Your task to perform on an android device: When is my next meeting? Image 0: 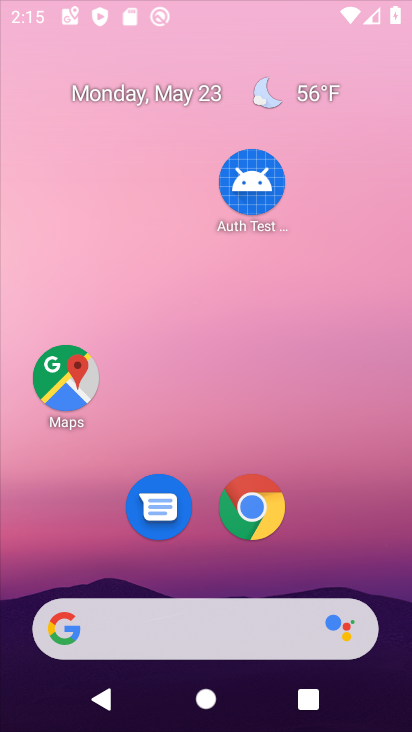
Step 0: click (230, 266)
Your task to perform on an android device: When is my next meeting? Image 1: 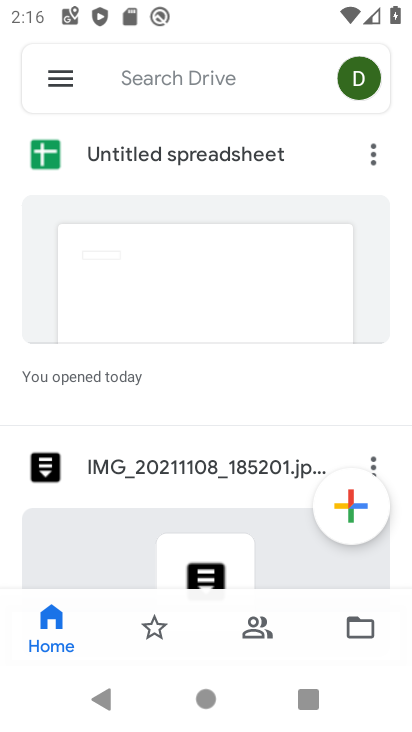
Step 1: press back button
Your task to perform on an android device: When is my next meeting? Image 2: 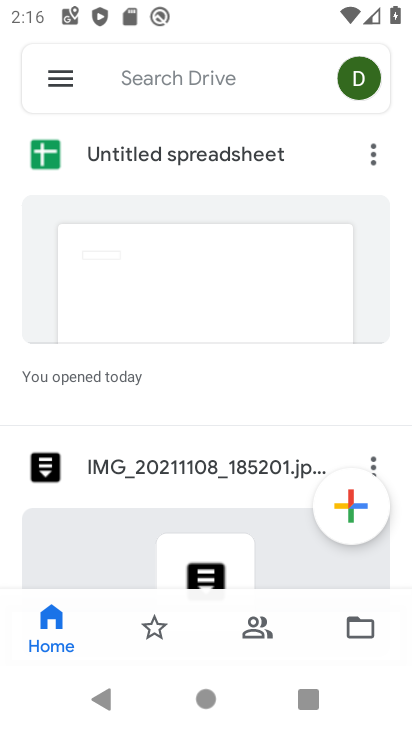
Step 2: press back button
Your task to perform on an android device: When is my next meeting? Image 3: 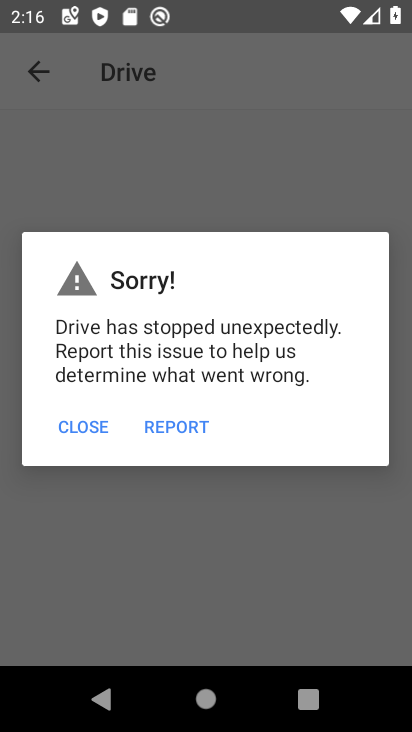
Step 3: press back button
Your task to perform on an android device: When is my next meeting? Image 4: 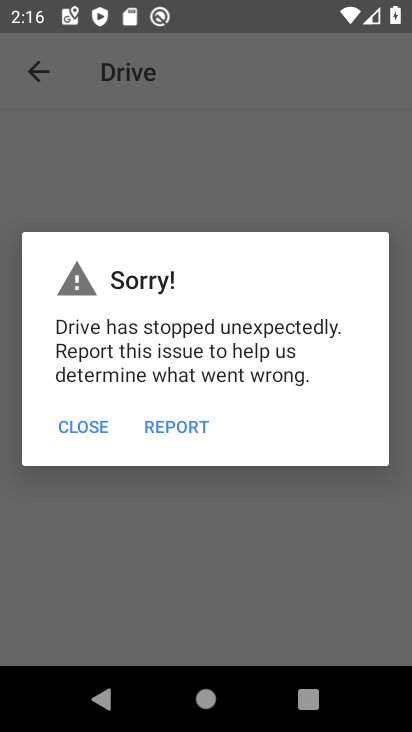
Step 4: press back button
Your task to perform on an android device: When is my next meeting? Image 5: 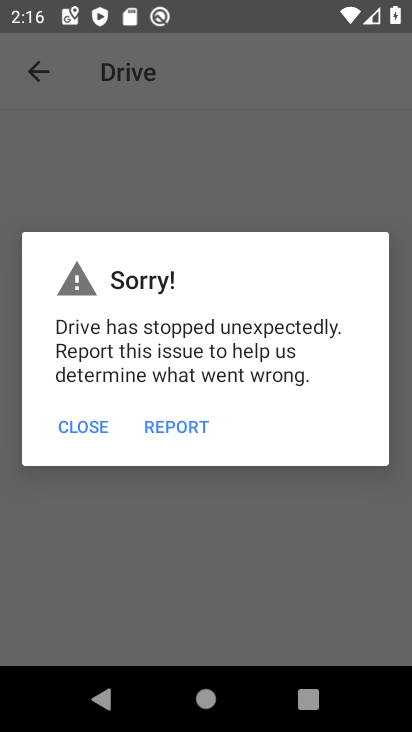
Step 5: press back button
Your task to perform on an android device: When is my next meeting? Image 6: 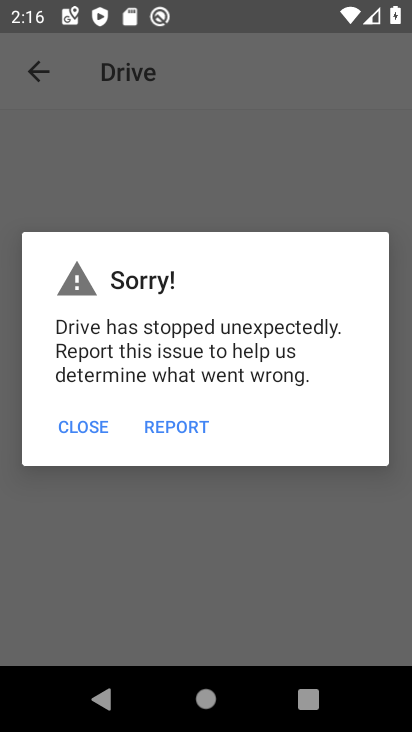
Step 6: press back button
Your task to perform on an android device: When is my next meeting? Image 7: 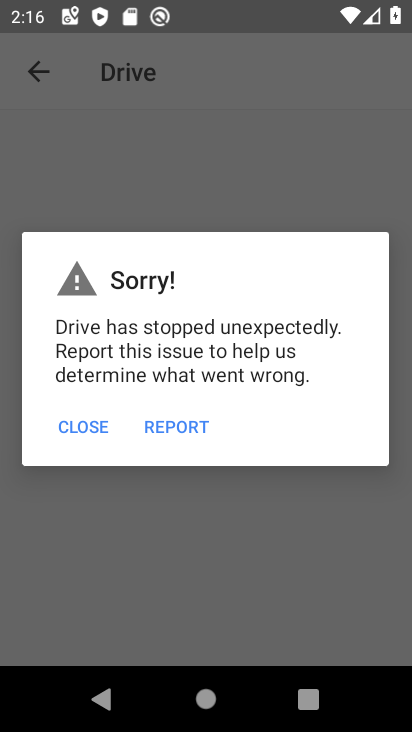
Step 7: click (95, 422)
Your task to perform on an android device: When is my next meeting? Image 8: 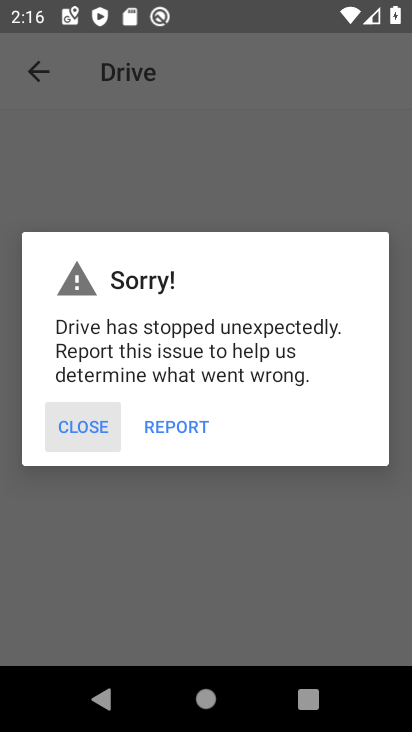
Step 8: click (83, 422)
Your task to perform on an android device: When is my next meeting? Image 9: 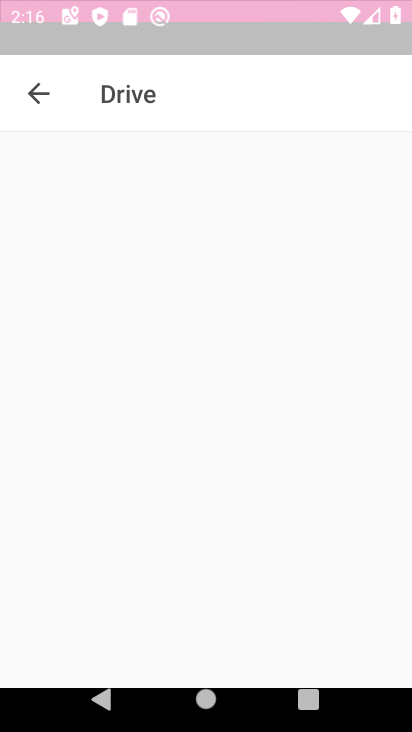
Step 9: click (83, 422)
Your task to perform on an android device: When is my next meeting? Image 10: 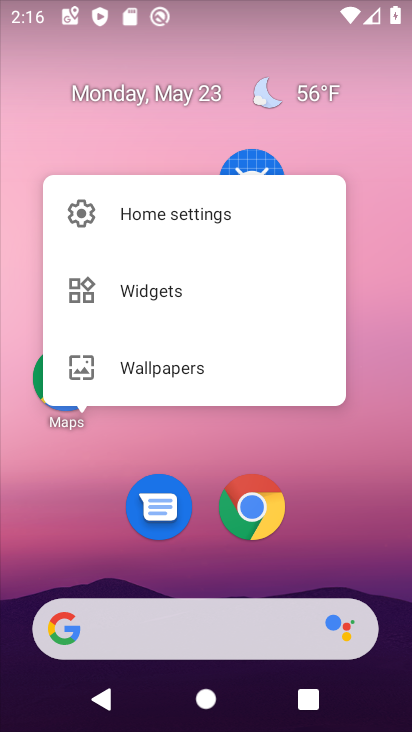
Step 10: drag from (361, 603) to (271, 5)
Your task to perform on an android device: When is my next meeting? Image 11: 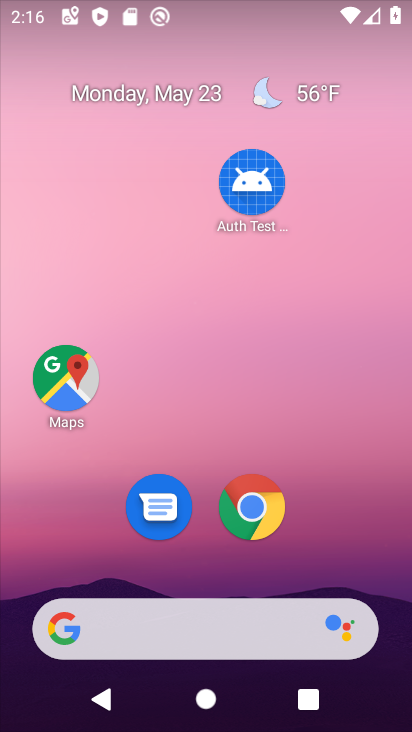
Step 11: drag from (323, 472) to (276, 6)
Your task to perform on an android device: When is my next meeting? Image 12: 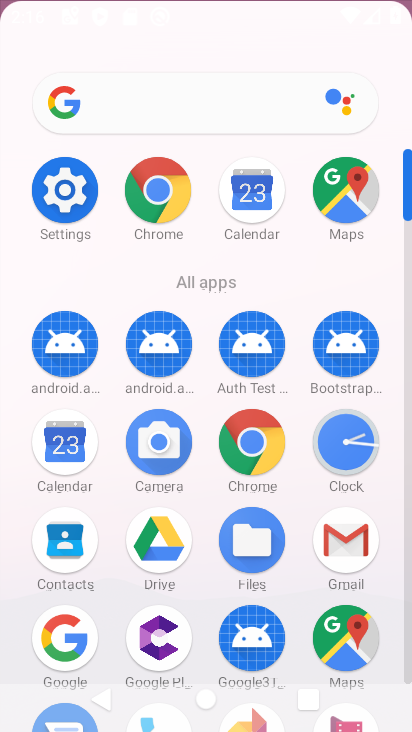
Step 12: click (257, 433)
Your task to perform on an android device: When is my next meeting? Image 13: 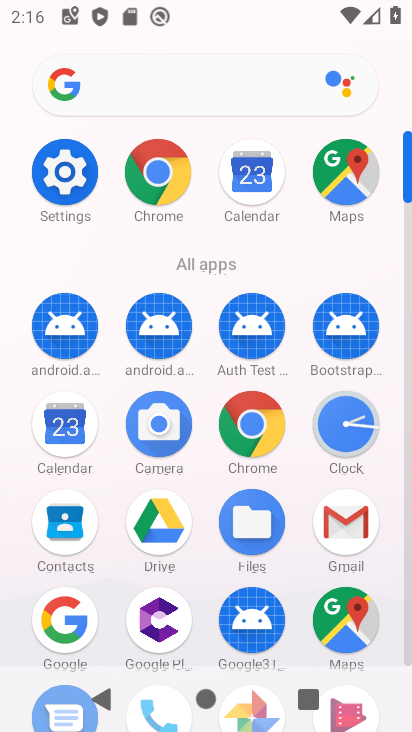
Step 13: drag from (236, 426) to (204, 5)
Your task to perform on an android device: When is my next meeting? Image 14: 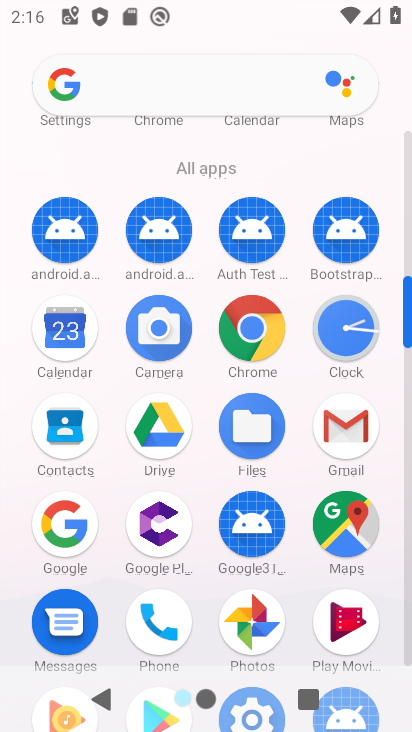
Step 14: drag from (212, 411) to (206, 27)
Your task to perform on an android device: When is my next meeting? Image 15: 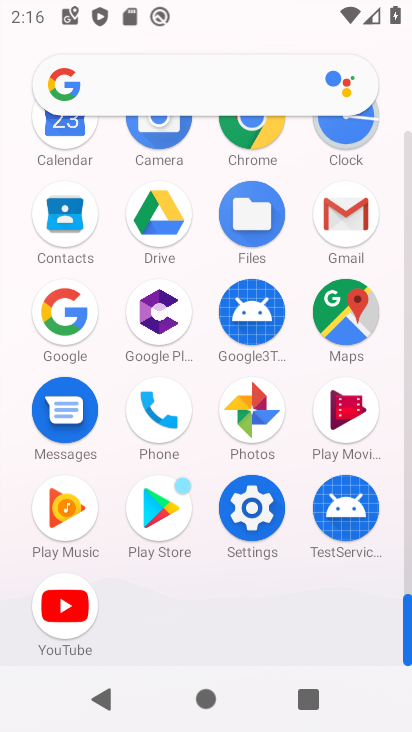
Step 15: drag from (199, 390) to (215, 106)
Your task to perform on an android device: When is my next meeting? Image 16: 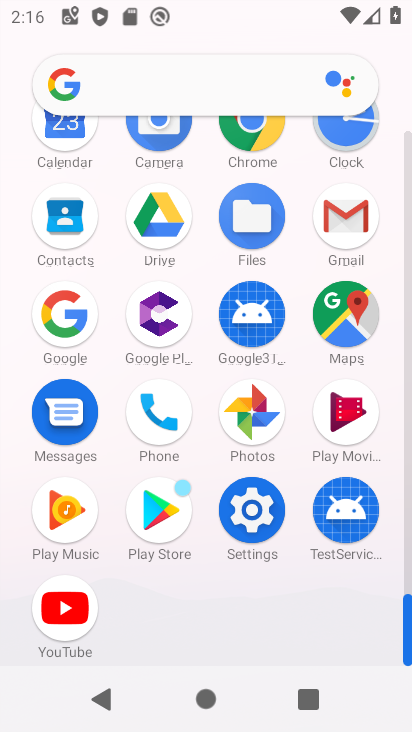
Step 16: drag from (234, 448) to (268, 5)
Your task to perform on an android device: When is my next meeting? Image 17: 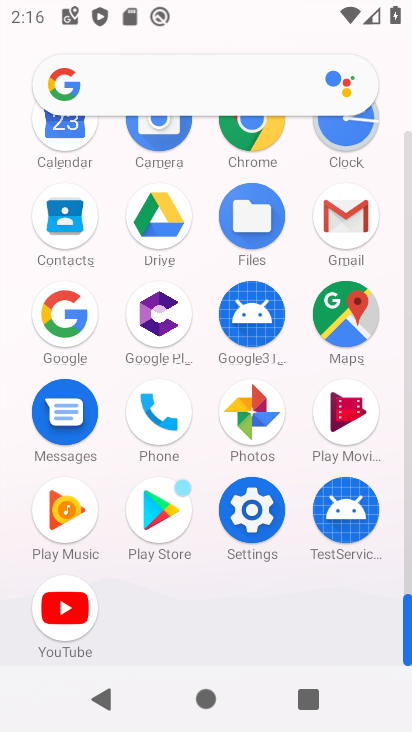
Step 17: drag from (202, 458) to (213, 543)
Your task to perform on an android device: When is my next meeting? Image 18: 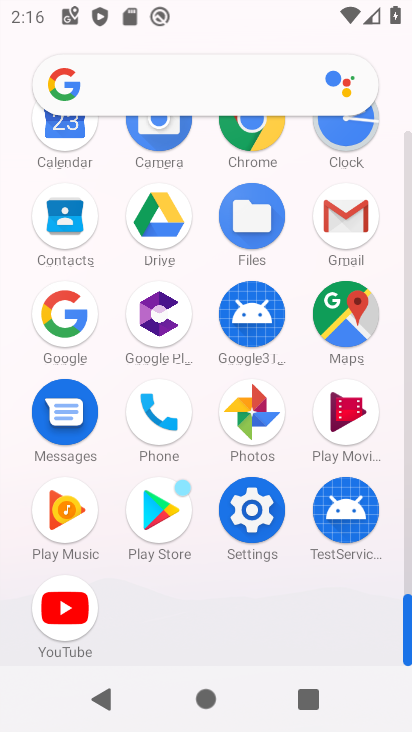
Step 18: drag from (194, 240) to (194, 479)
Your task to perform on an android device: When is my next meeting? Image 19: 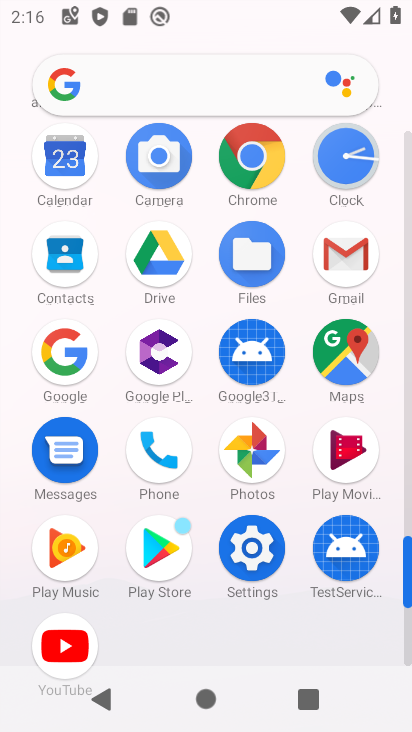
Step 19: drag from (166, 246) to (207, 528)
Your task to perform on an android device: When is my next meeting? Image 20: 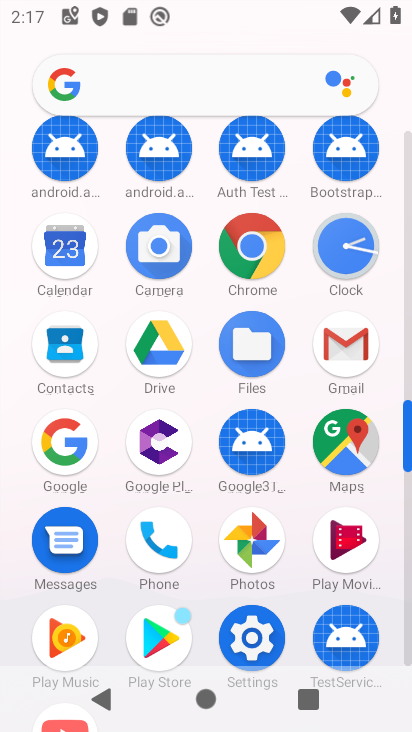
Step 20: click (254, 638)
Your task to perform on an android device: When is my next meeting? Image 21: 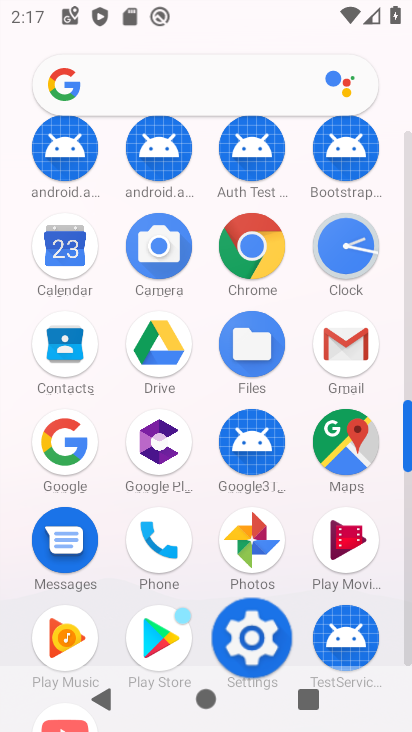
Step 21: click (254, 638)
Your task to perform on an android device: When is my next meeting? Image 22: 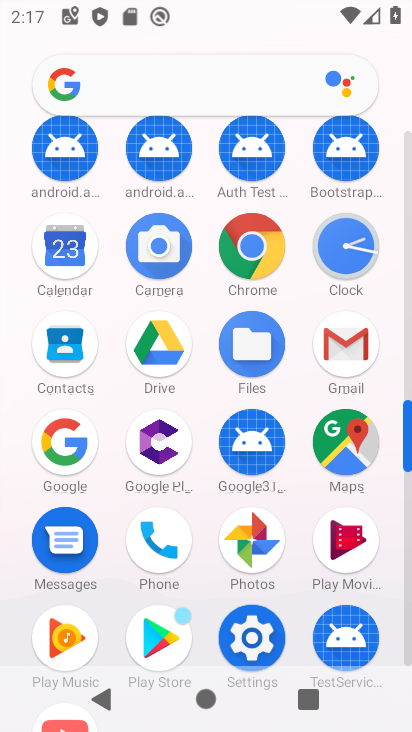
Step 22: click (254, 638)
Your task to perform on an android device: When is my next meeting? Image 23: 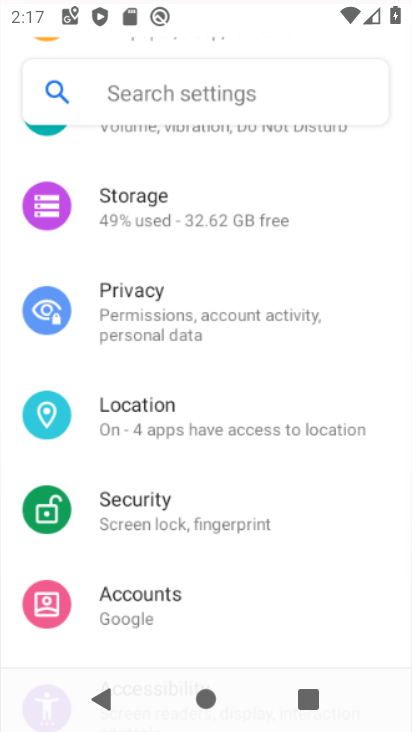
Step 23: click (255, 639)
Your task to perform on an android device: When is my next meeting? Image 24: 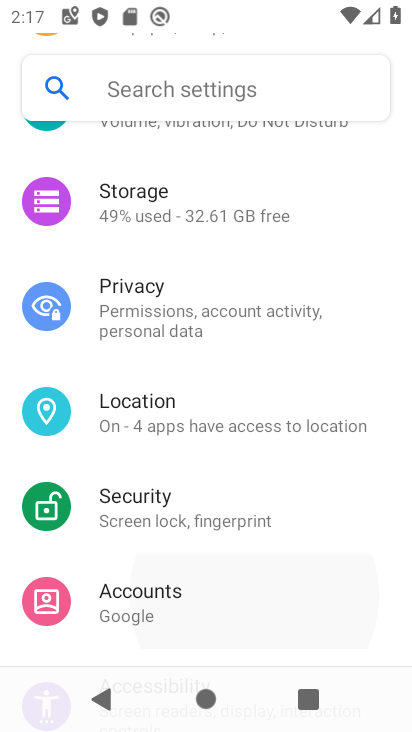
Step 24: click (255, 639)
Your task to perform on an android device: When is my next meeting? Image 25: 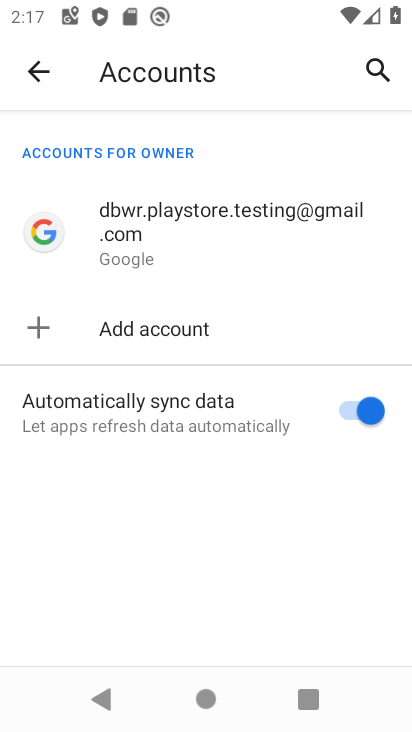
Step 25: click (32, 71)
Your task to perform on an android device: When is my next meeting? Image 26: 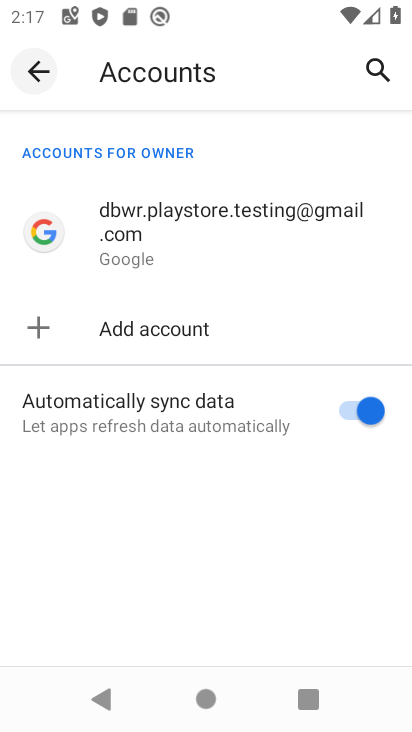
Step 26: click (32, 71)
Your task to perform on an android device: When is my next meeting? Image 27: 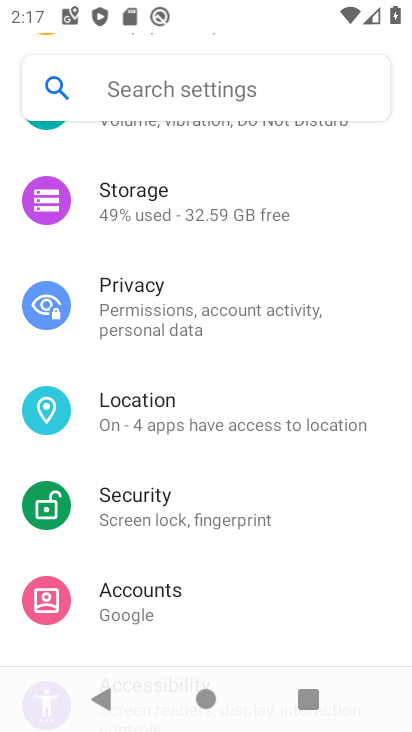
Step 27: click (32, 71)
Your task to perform on an android device: When is my next meeting? Image 28: 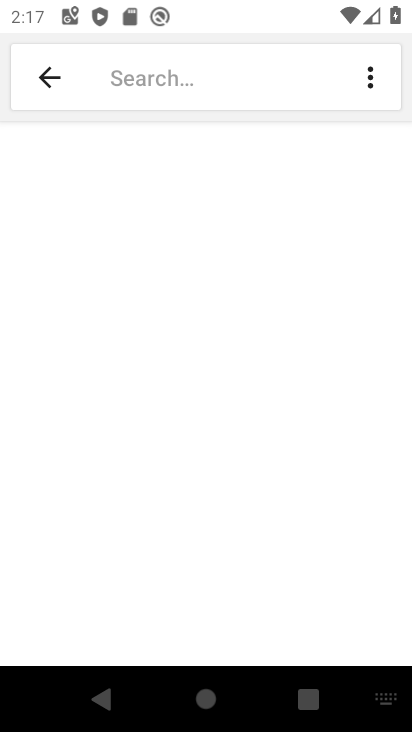
Step 28: click (44, 71)
Your task to perform on an android device: When is my next meeting? Image 29: 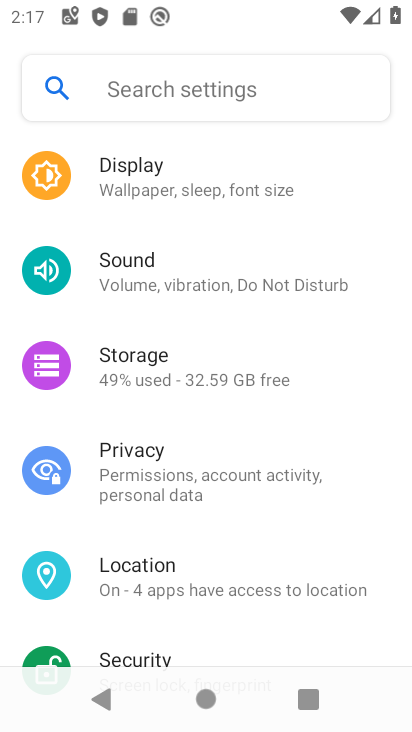
Step 29: drag from (158, 303) to (195, 464)
Your task to perform on an android device: When is my next meeting? Image 30: 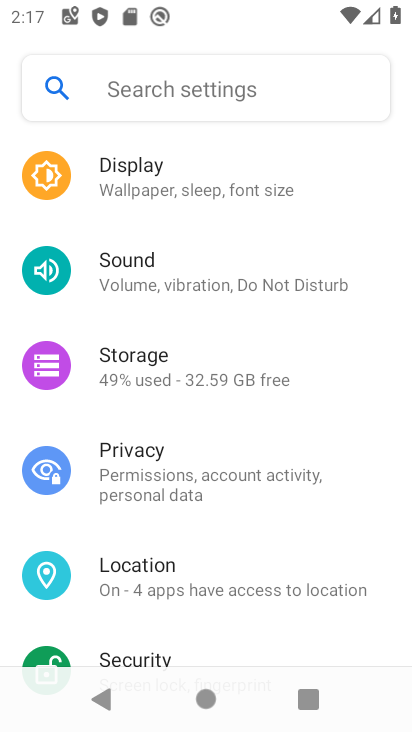
Step 30: drag from (210, 247) to (218, 539)
Your task to perform on an android device: When is my next meeting? Image 31: 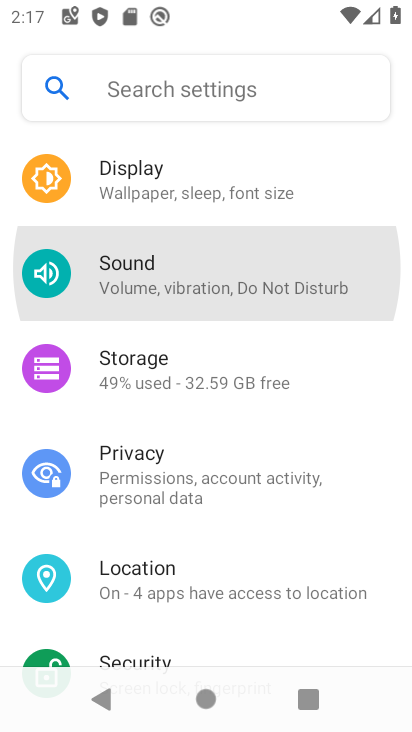
Step 31: drag from (153, 207) to (218, 530)
Your task to perform on an android device: When is my next meeting? Image 32: 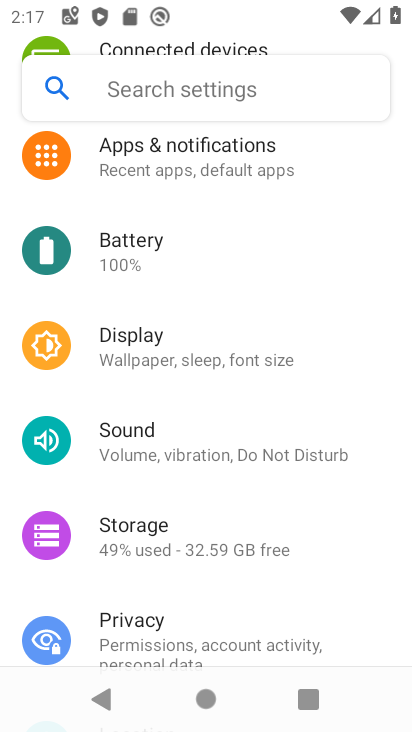
Step 32: drag from (140, 216) to (166, 535)
Your task to perform on an android device: When is my next meeting? Image 33: 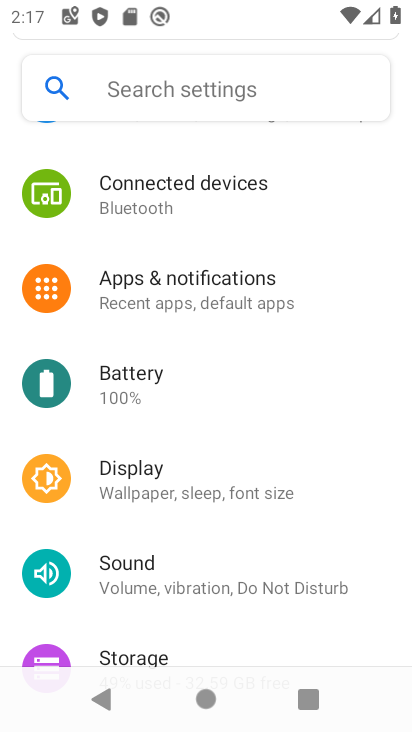
Step 33: drag from (149, 336) to (152, 540)
Your task to perform on an android device: When is my next meeting? Image 34: 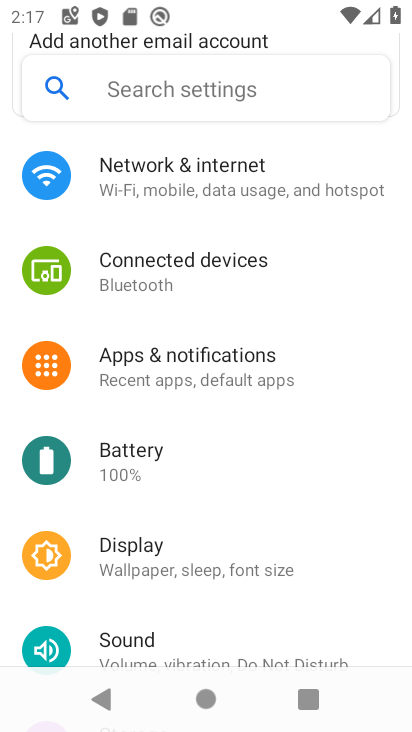
Step 34: drag from (140, 195) to (195, 593)
Your task to perform on an android device: When is my next meeting? Image 35: 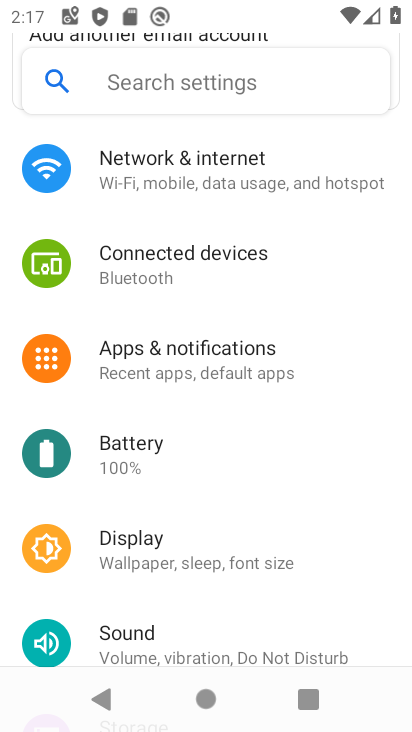
Step 35: drag from (133, 246) to (137, 573)
Your task to perform on an android device: When is my next meeting? Image 36: 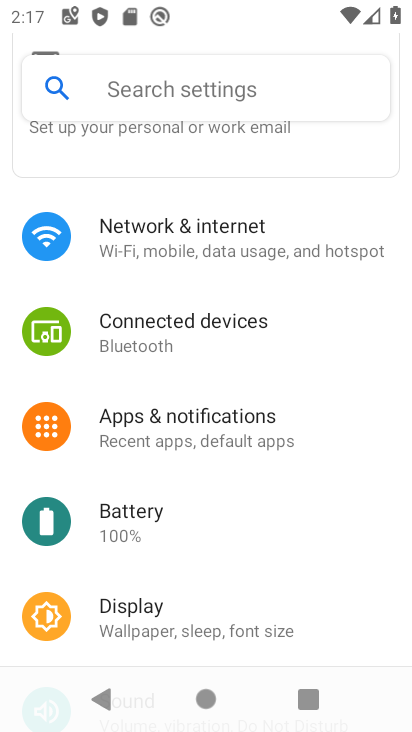
Step 36: drag from (67, 244) to (106, 637)
Your task to perform on an android device: When is my next meeting? Image 37: 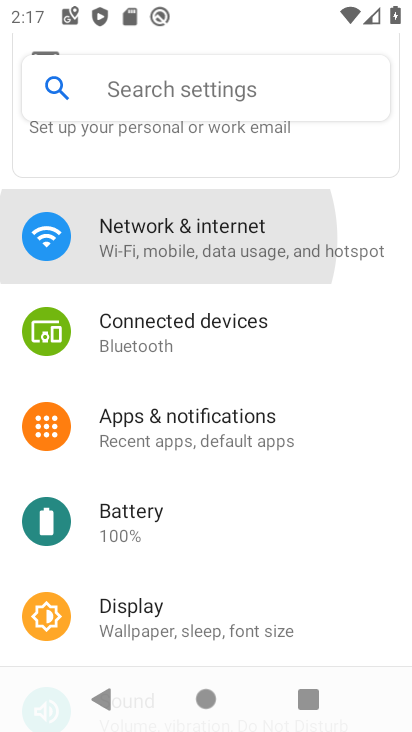
Step 37: drag from (164, 370) to (207, 526)
Your task to perform on an android device: When is my next meeting? Image 38: 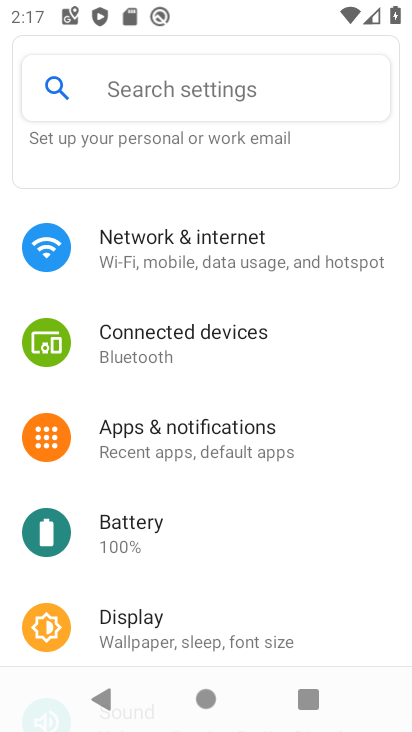
Step 38: drag from (188, 468) to (230, 633)
Your task to perform on an android device: When is my next meeting? Image 39: 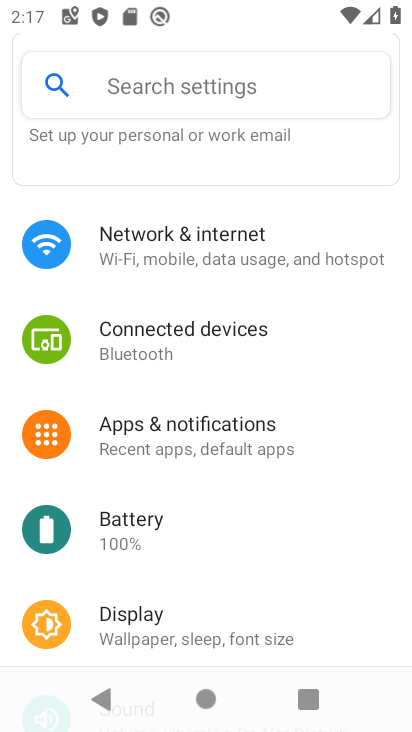
Step 39: drag from (200, 517) to (201, 238)
Your task to perform on an android device: When is my next meeting? Image 40: 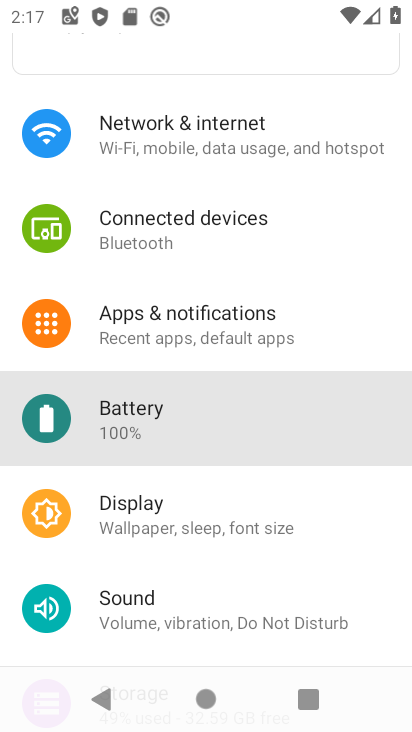
Step 40: drag from (235, 483) to (246, 164)
Your task to perform on an android device: When is my next meeting? Image 41: 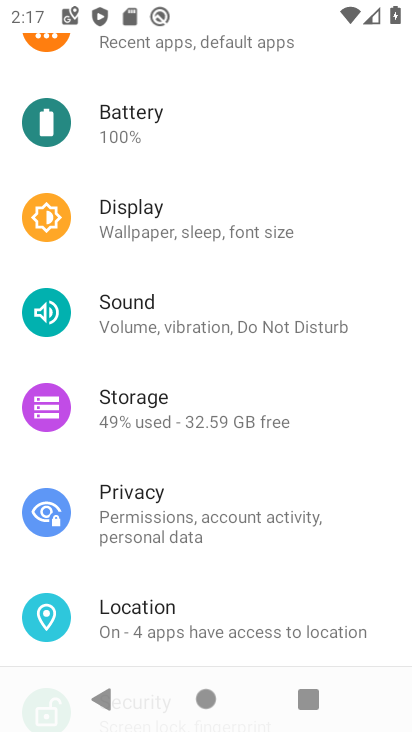
Step 41: drag from (214, 459) to (214, 140)
Your task to perform on an android device: When is my next meeting? Image 42: 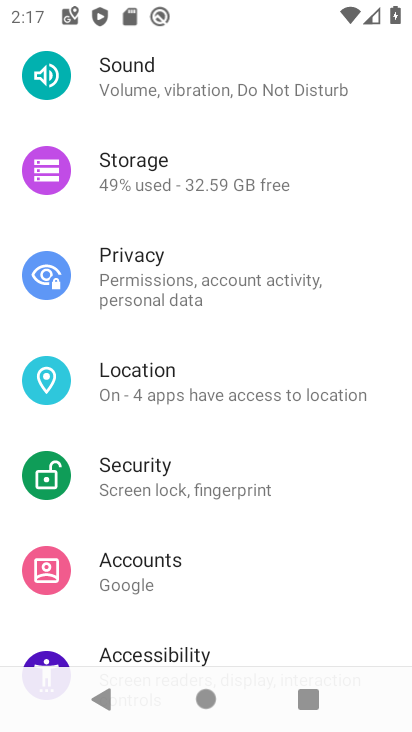
Step 42: drag from (232, 395) to (231, 119)
Your task to perform on an android device: When is my next meeting? Image 43: 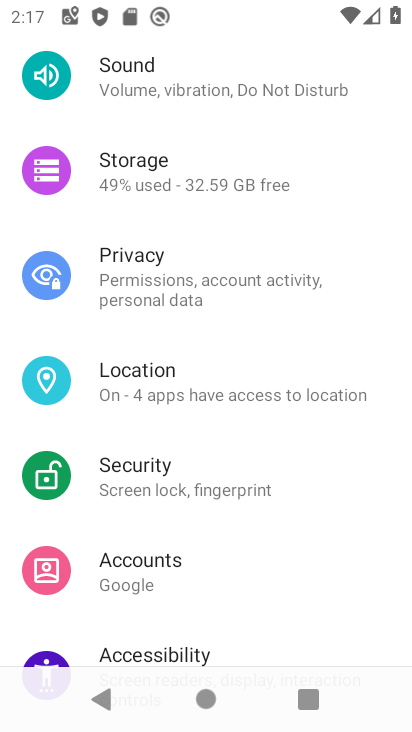
Step 43: drag from (241, 439) to (225, 135)
Your task to perform on an android device: When is my next meeting? Image 44: 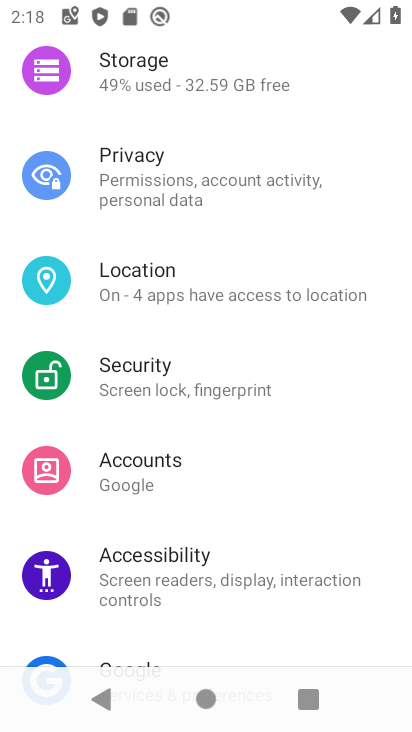
Step 44: drag from (183, 428) to (183, 16)
Your task to perform on an android device: When is my next meeting? Image 45: 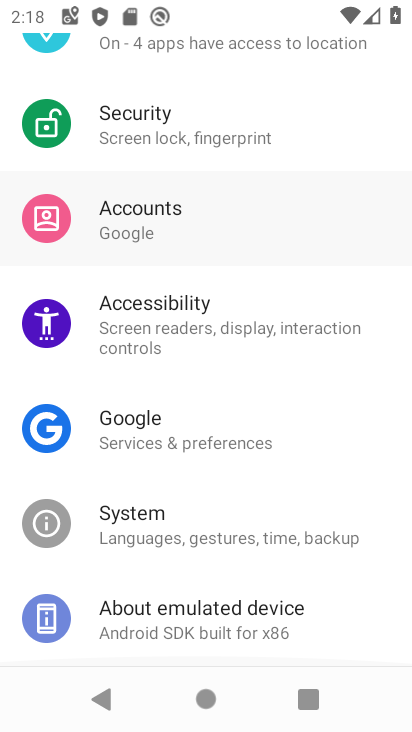
Step 45: drag from (222, 377) to (190, 114)
Your task to perform on an android device: When is my next meeting? Image 46: 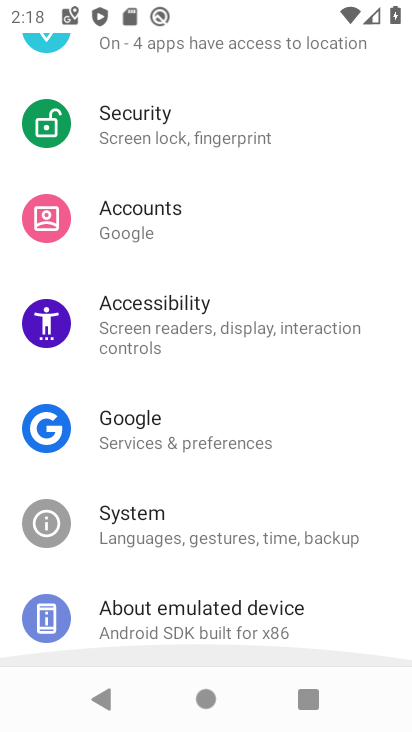
Step 46: drag from (211, 423) to (207, 157)
Your task to perform on an android device: When is my next meeting? Image 47: 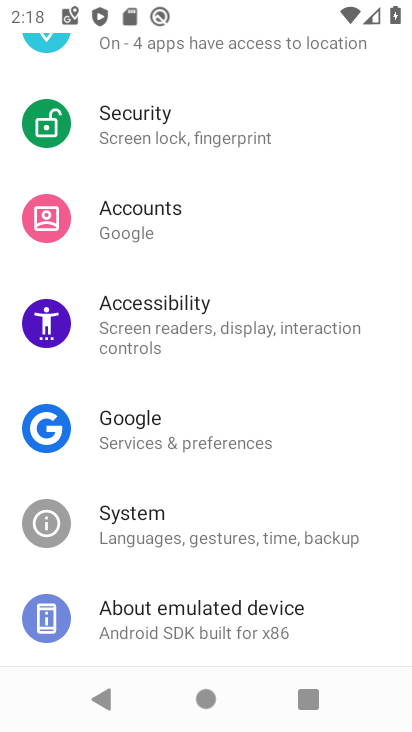
Step 47: drag from (201, 605) to (232, 133)
Your task to perform on an android device: When is my next meeting? Image 48: 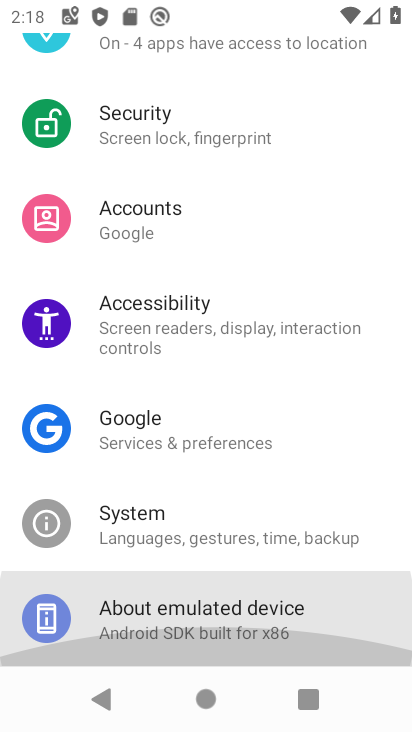
Step 48: drag from (205, 417) to (178, 41)
Your task to perform on an android device: When is my next meeting? Image 49: 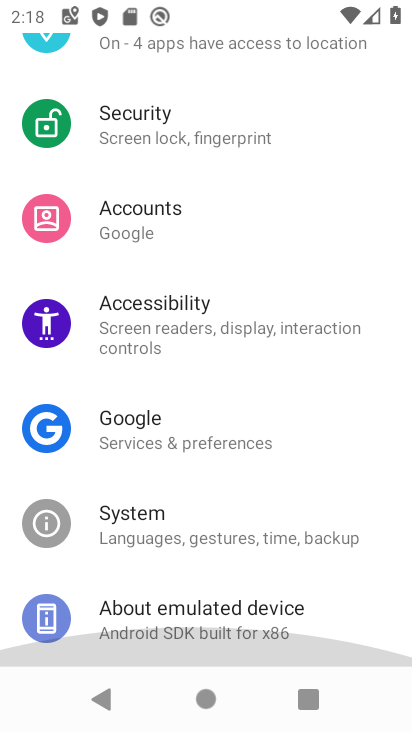
Step 49: drag from (161, 413) to (150, 119)
Your task to perform on an android device: When is my next meeting? Image 50: 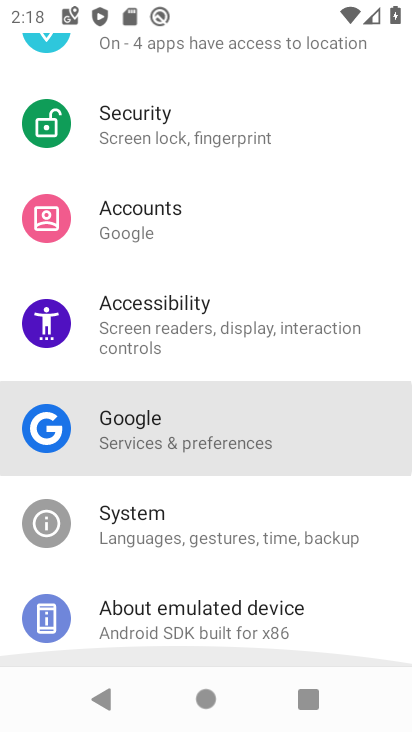
Step 50: drag from (194, 549) to (190, 206)
Your task to perform on an android device: When is my next meeting? Image 51: 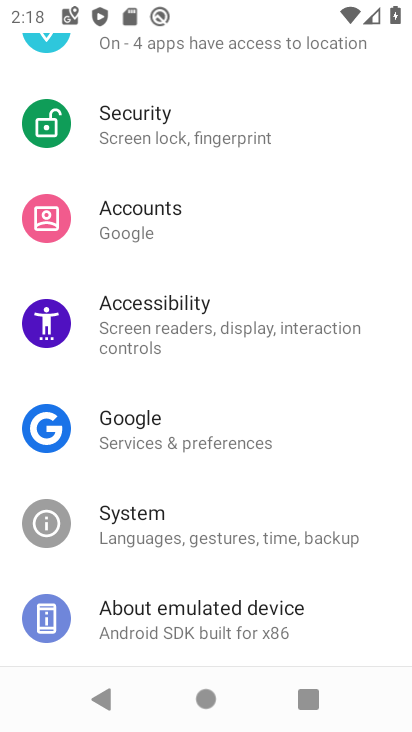
Step 51: drag from (168, 227) to (237, 578)
Your task to perform on an android device: When is my next meeting? Image 52: 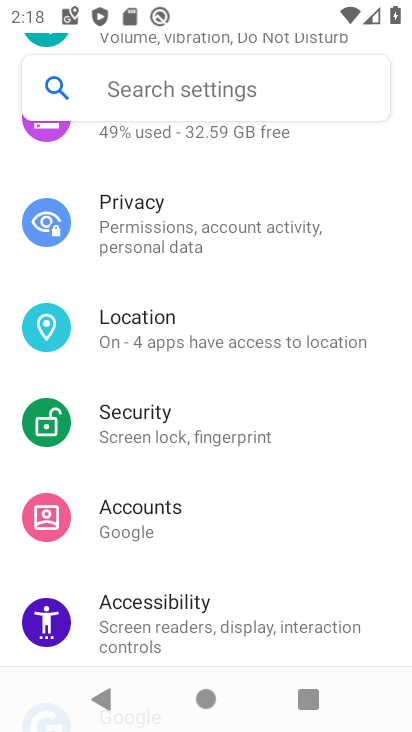
Step 52: drag from (219, 245) to (226, 606)
Your task to perform on an android device: When is my next meeting? Image 53: 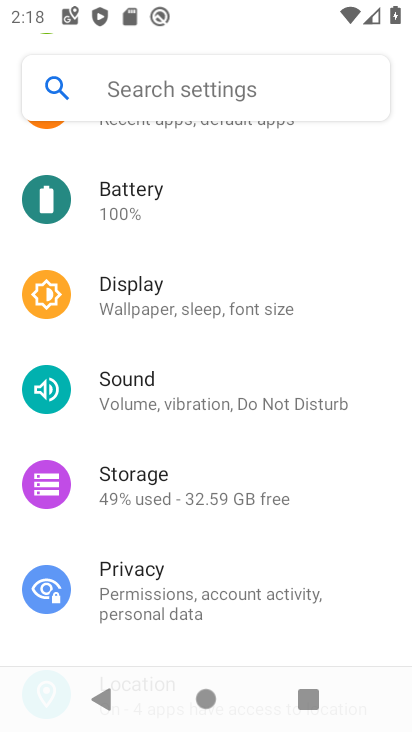
Step 53: drag from (159, 257) to (229, 687)
Your task to perform on an android device: When is my next meeting? Image 54: 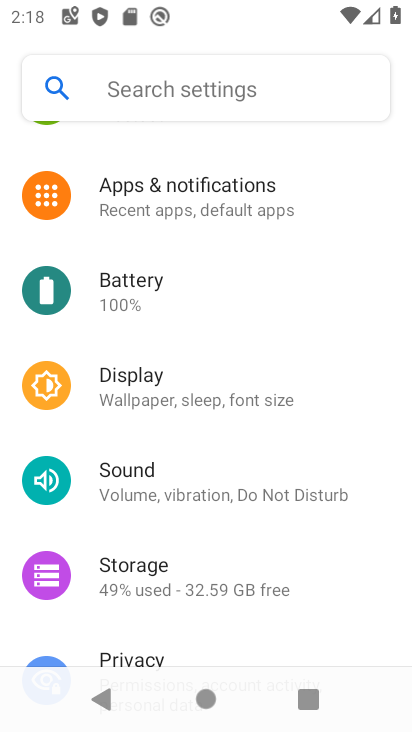
Step 54: drag from (165, 323) to (291, 606)
Your task to perform on an android device: When is my next meeting? Image 55: 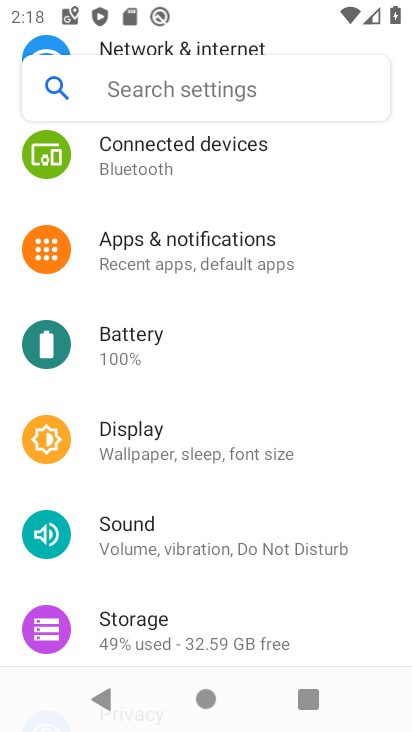
Step 55: press home button
Your task to perform on an android device: When is my next meeting? Image 56: 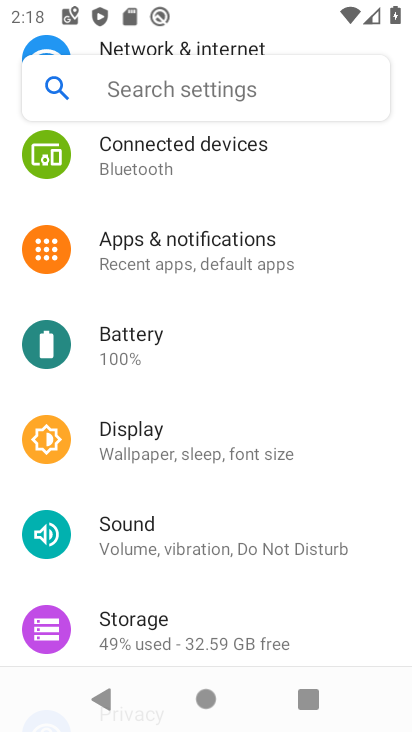
Step 56: press home button
Your task to perform on an android device: When is my next meeting? Image 57: 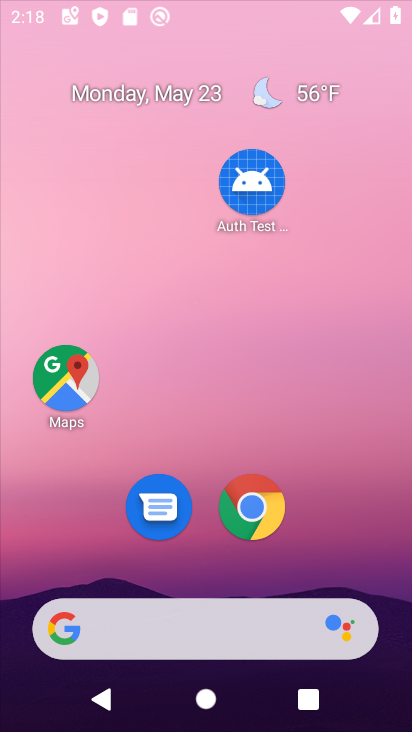
Step 57: press home button
Your task to perform on an android device: When is my next meeting? Image 58: 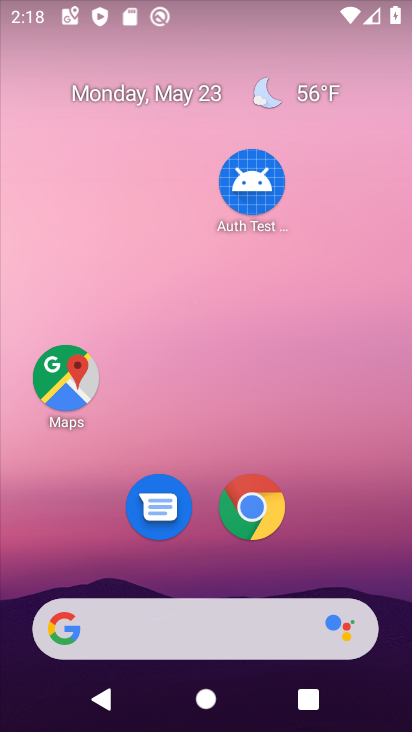
Step 58: drag from (255, 666) to (202, 131)
Your task to perform on an android device: When is my next meeting? Image 59: 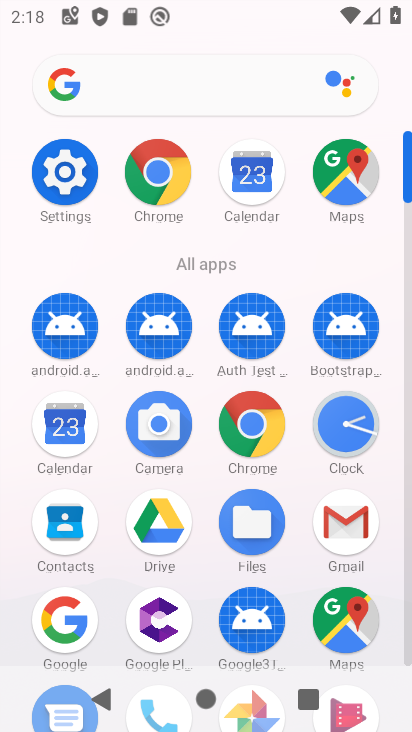
Step 59: click (61, 432)
Your task to perform on an android device: When is my next meeting? Image 60: 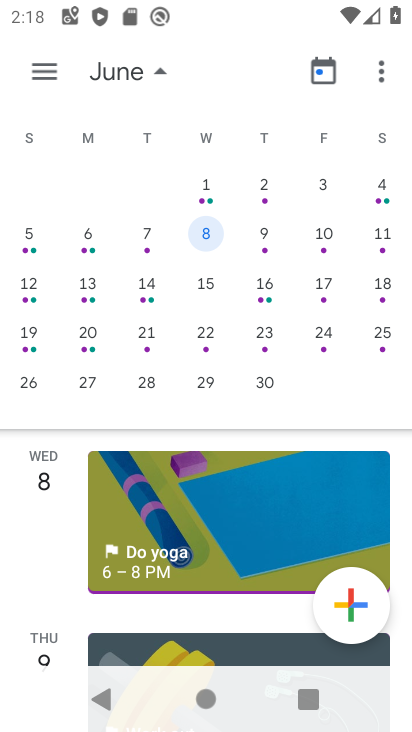
Step 60: drag from (204, 278) to (27, 304)
Your task to perform on an android device: When is my next meeting? Image 61: 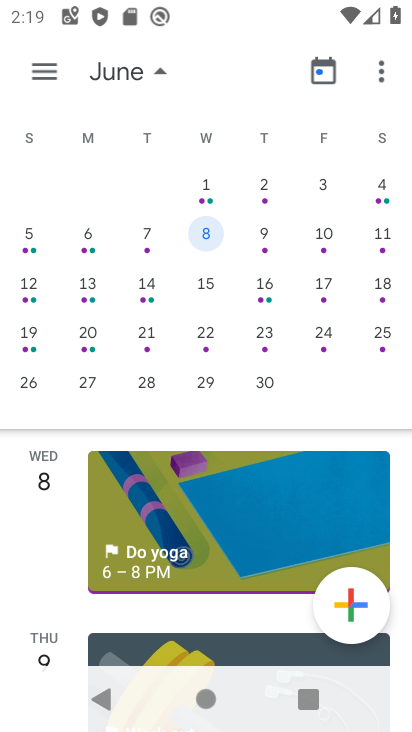
Step 61: click (206, 275)
Your task to perform on an android device: When is my next meeting? Image 62: 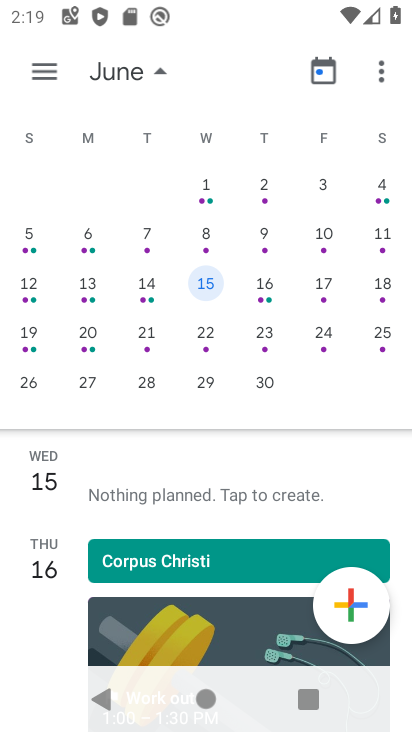
Step 62: drag from (62, 289) to (333, 354)
Your task to perform on an android device: When is my next meeting? Image 63: 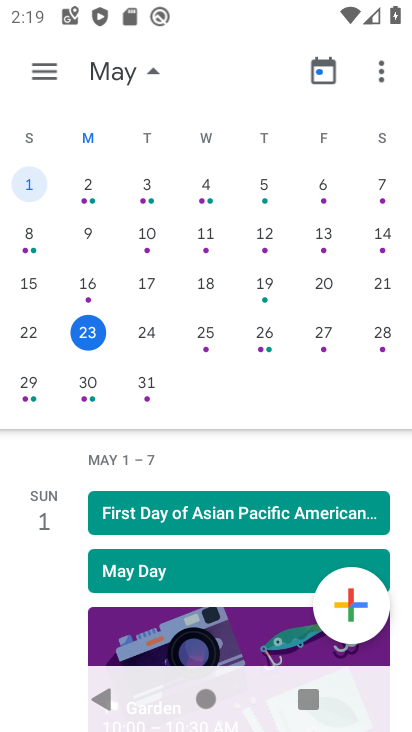
Step 63: drag from (157, 284) to (398, 306)
Your task to perform on an android device: When is my next meeting? Image 64: 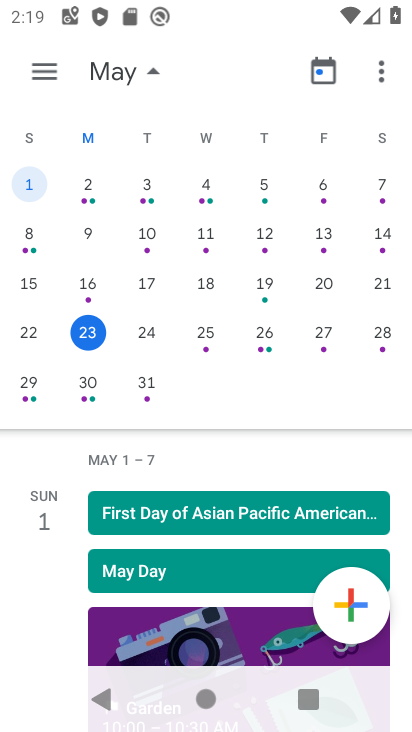
Step 64: drag from (183, 558) to (188, 293)
Your task to perform on an android device: When is my next meeting? Image 65: 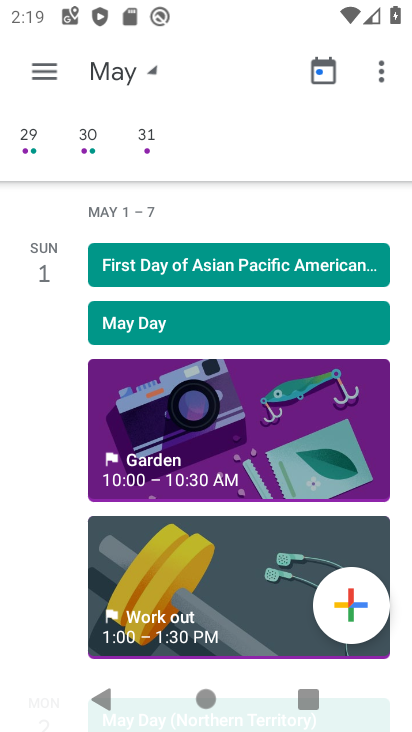
Step 65: drag from (200, 509) to (199, 206)
Your task to perform on an android device: When is my next meeting? Image 66: 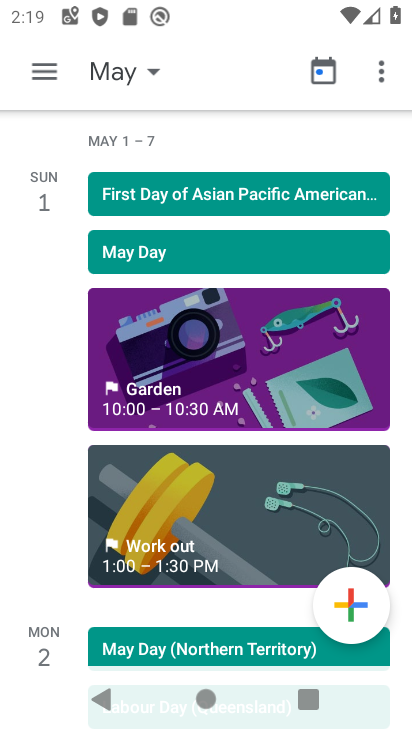
Step 66: drag from (215, 462) to (232, 153)
Your task to perform on an android device: When is my next meeting? Image 67: 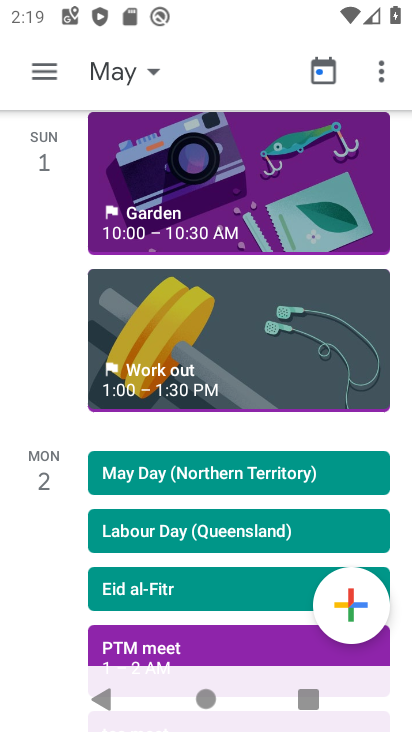
Step 67: drag from (228, 465) to (222, 138)
Your task to perform on an android device: When is my next meeting? Image 68: 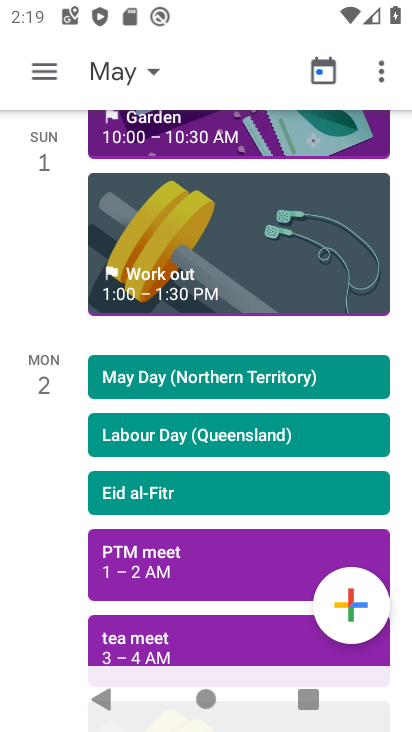
Step 68: drag from (201, 375) to (193, 146)
Your task to perform on an android device: When is my next meeting? Image 69: 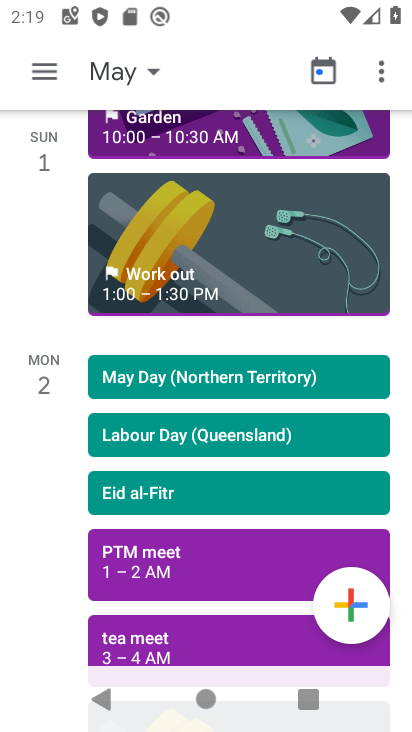
Step 69: click (116, 364)
Your task to perform on an android device: When is my next meeting? Image 70: 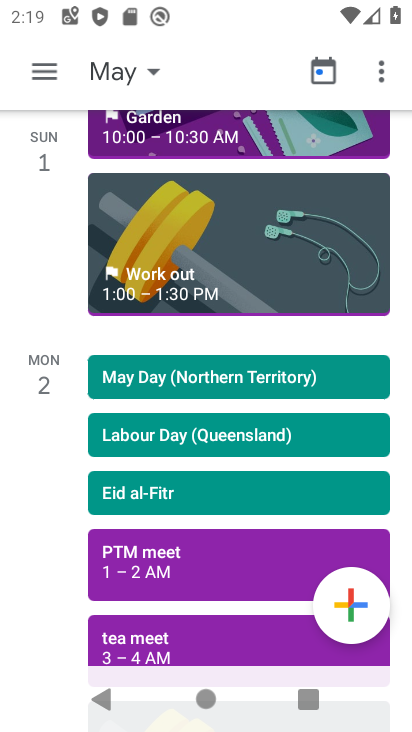
Step 70: click (121, 367)
Your task to perform on an android device: When is my next meeting? Image 71: 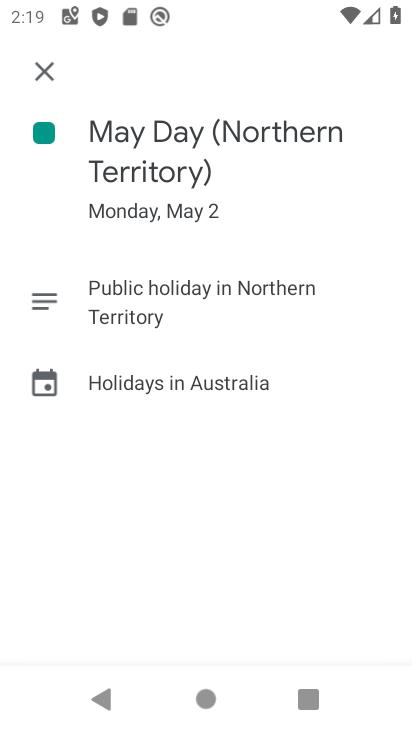
Step 71: task complete